Your task to perform on an android device: Open the stopwatch Image 0: 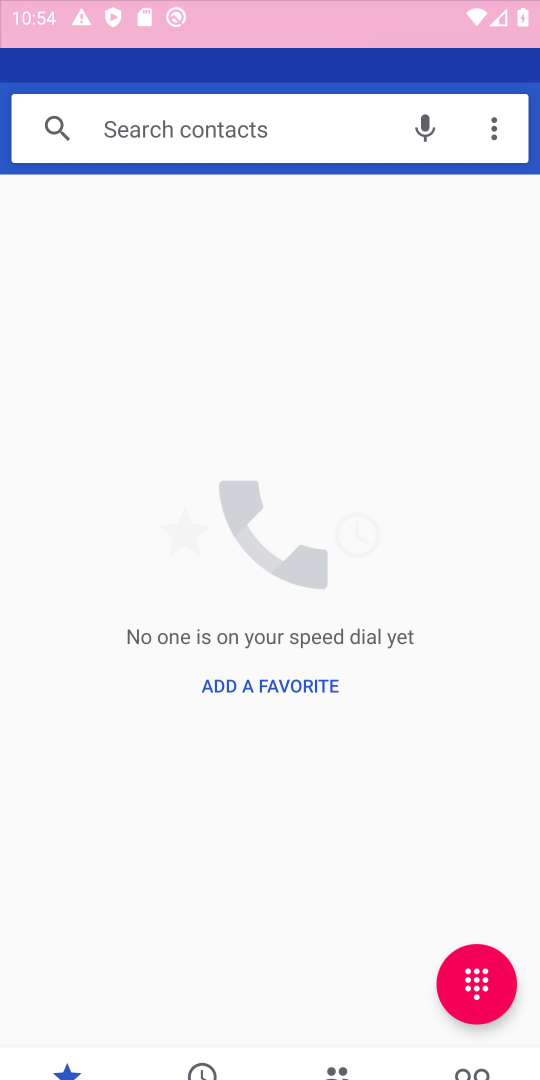
Step 0: press home button
Your task to perform on an android device: Open the stopwatch Image 1: 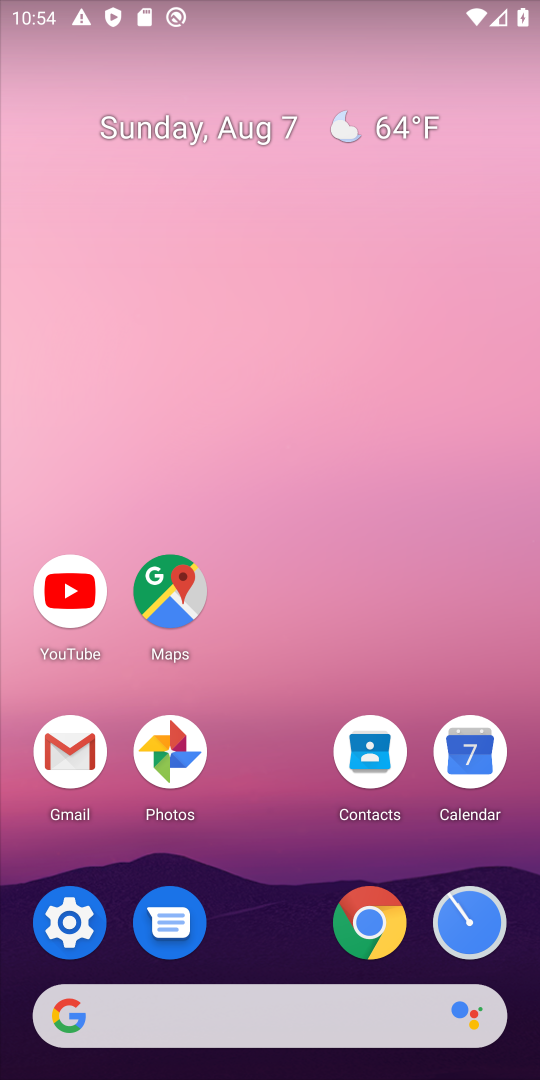
Step 1: click (472, 926)
Your task to perform on an android device: Open the stopwatch Image 2: 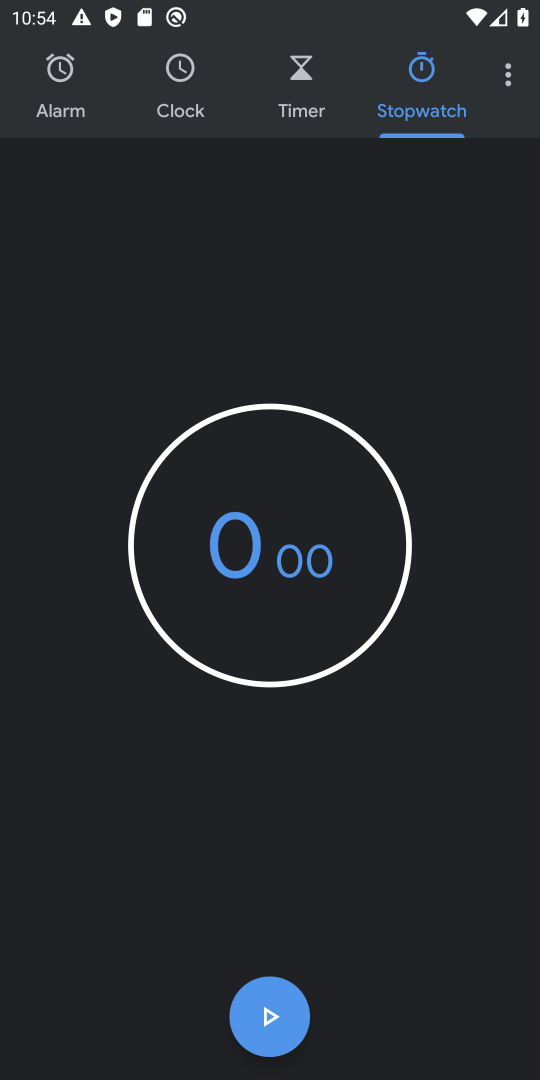
Step 2: task complete